Your task to perform on an android device: Add "razer huntsman" to the cart on newegg, then select checkout. Image 0: 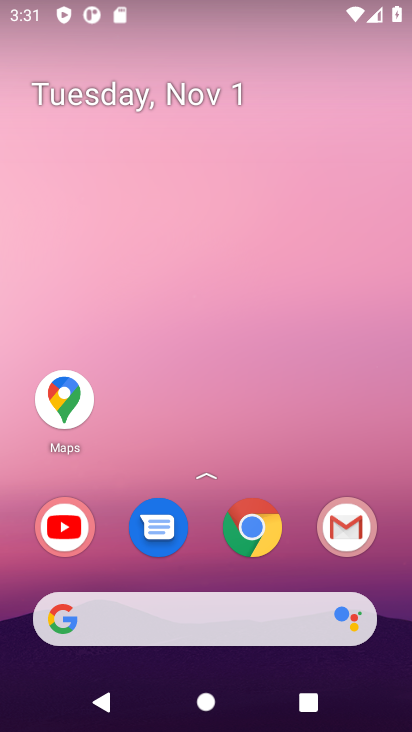
Step 0: click (217, 629)
Your task to perform on an android device: Add "razer huntsman" to the cart on newegg, then select checkout. Image 1: 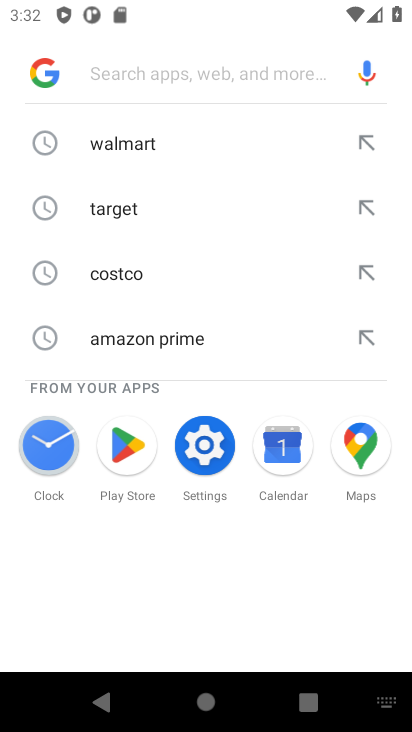
Step 1: type "newegg"
Your task to perform on an android device: Add "razer huntsman" to the cart on newegg, then select checkout. Image 2: 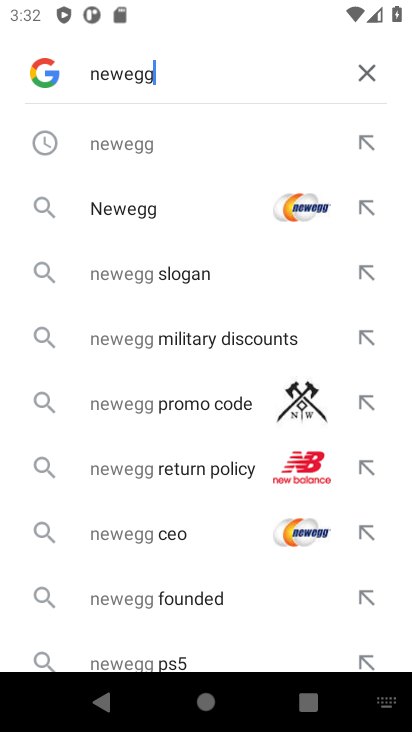
Step 2: type ""
Your task to perform on an android device: Add "razer huntsman" to the cart on newegg, then select checkout. Image 3: 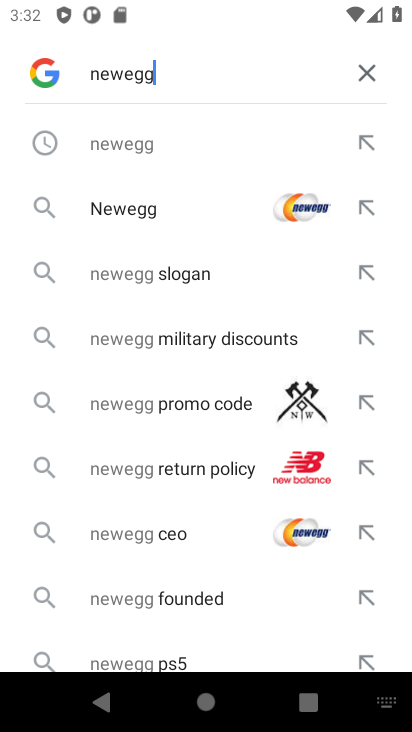
Step 3: click (119, 211)
Your task to perform on an android device: Add "razer huntsman" to the cart on newegg, then select checkout. Image 4: 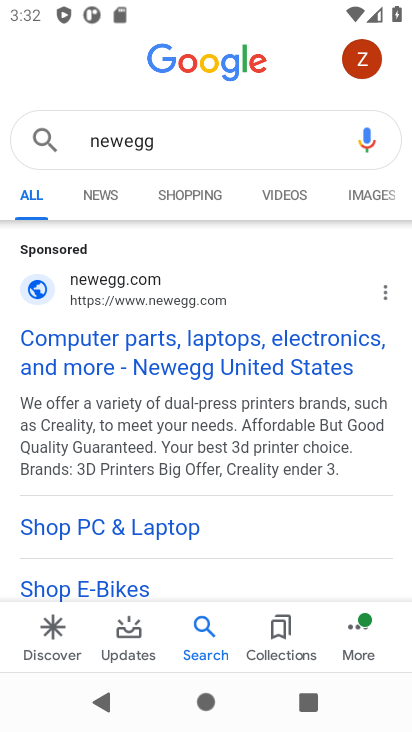
Step 4: click (123, 330)
Your task to perform on an android device: Add "razer huntsman" to the cart on newegg, then select checkout. Image 5: 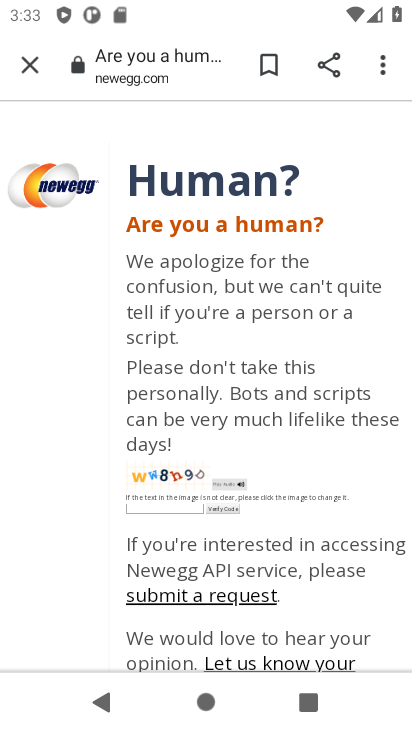
Step 5: task complete